Your task to perform on an android device: turn on bluetooth scan Image 0: 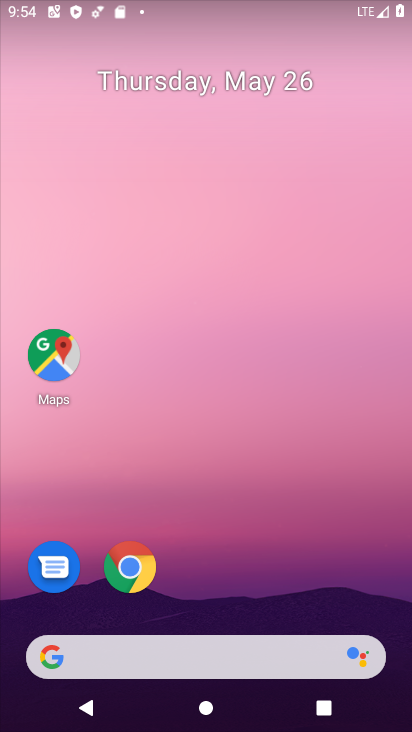
Step 0: drag from (291, 669) to (362, 181)
Your task to perform on an android device: turn on bluetooth scan Image 1: 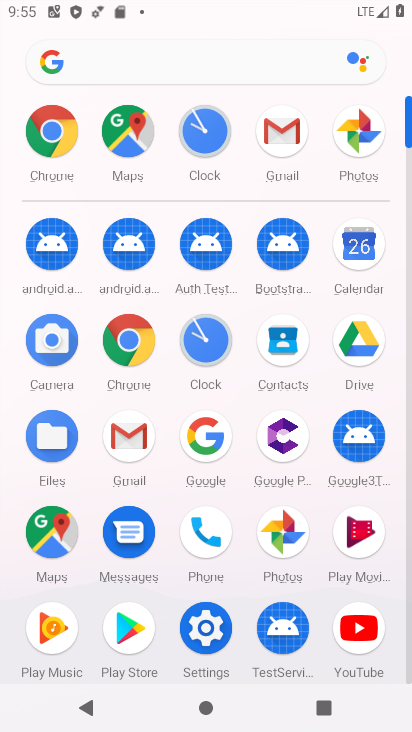
Step 1: click (204, 617)
Your task to perform on an android device: turn on bluetooth scan Image 2: 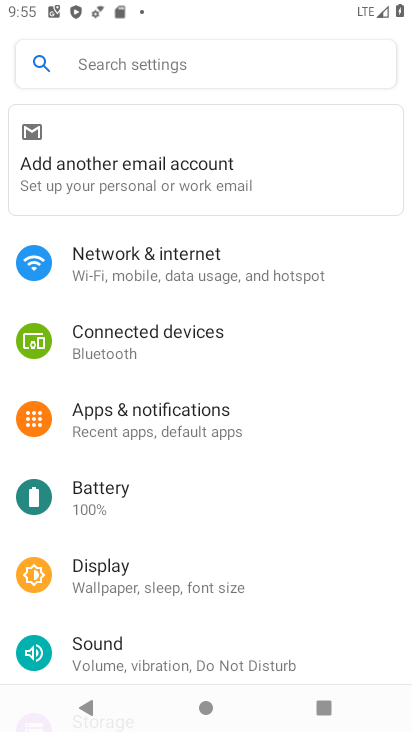
Step 2: drag from (161, 548) to (161, 241)
Your task to perform on an android device: turn on bluetooth scan Image 3: 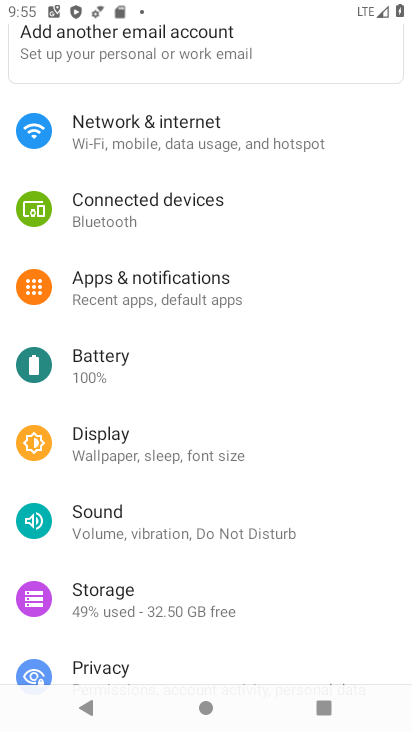
Step 3: drag from (163, 595) to (191, 207)
Your task to perform on an android device: turn on bluetooth scan Image 4: 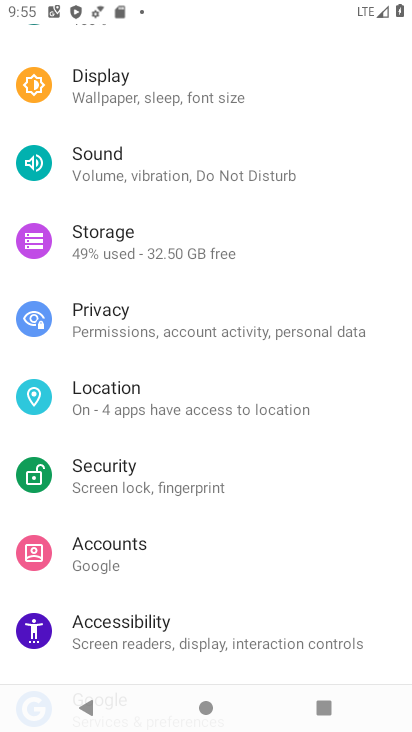
Step 4: click (148, 389)
Your task to perform on an android device: turn on bluetooth scan Image 5: 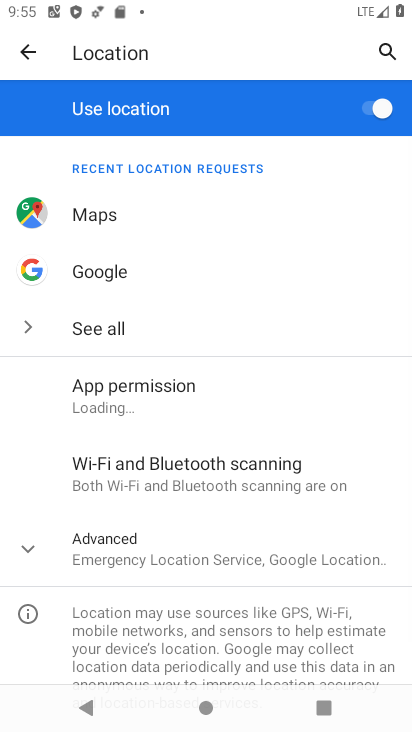
Step 5: click (208, 492)
Your task to perform on an android device: turn on bluetooth scan Image 6: 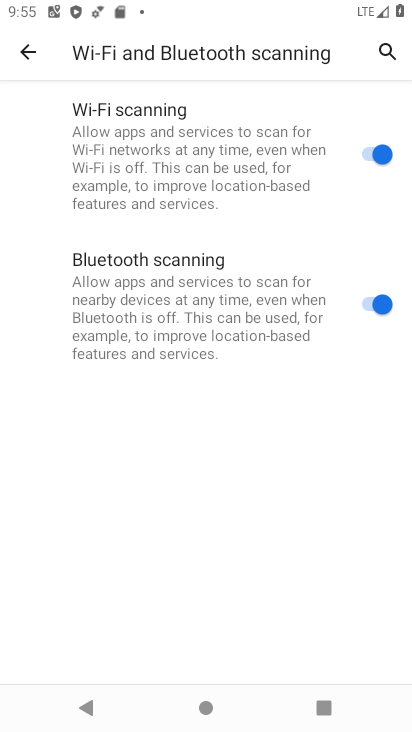
Step 6: task complete